Your task to perform on an android device: Turn off the flashlight Image 0: 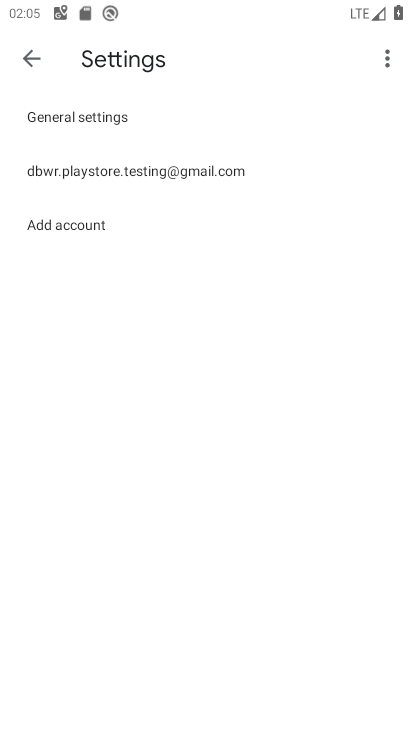
Step 0: press home button
Your task to perform on an android device: Turn off the flashlight Image 1: 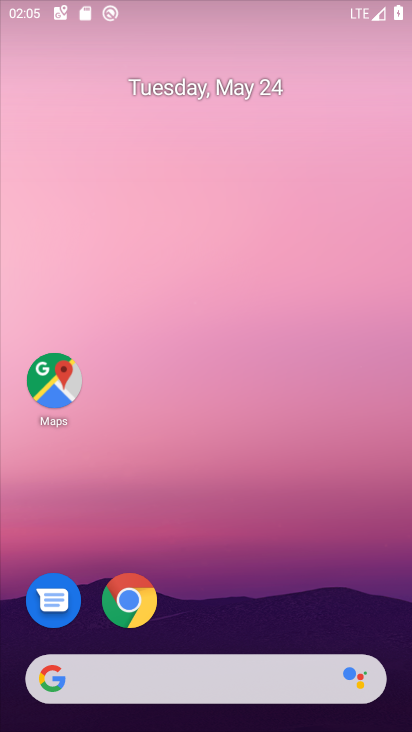
Step 1: task complete